Your task to perform on an android device: delete a single message in the gmail app Image 0: 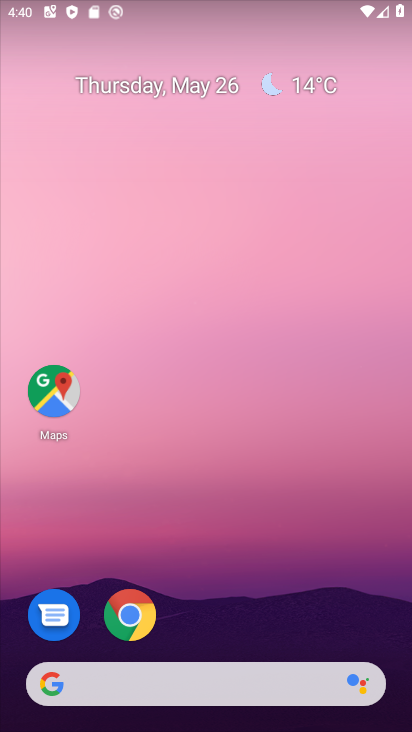
Step 0: drag from (224, 489) to (241, 105)
Your task to perform on an android device: delete a single message in the gmail app Image 1: 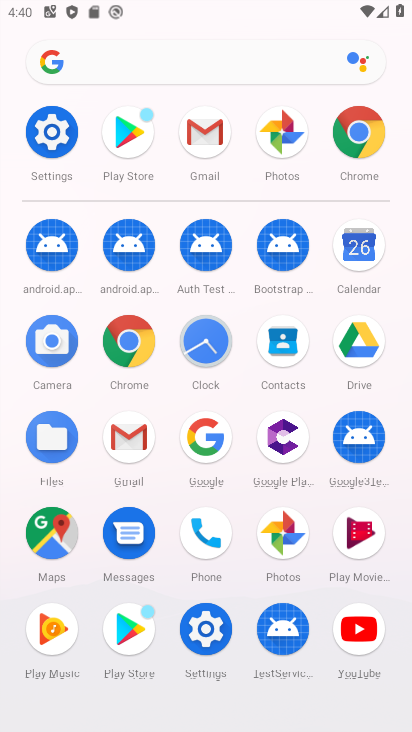
Step 1: click (209, 136)
Your task to perform on an android device: delete a single message in the gmail app Image 2: 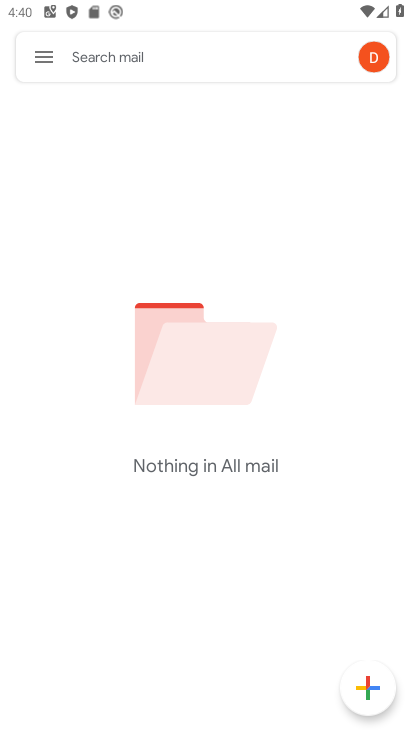
Step 2: click (31, 50)
Your task to perform on an android device: delete a single message in the gmail app Image 3: 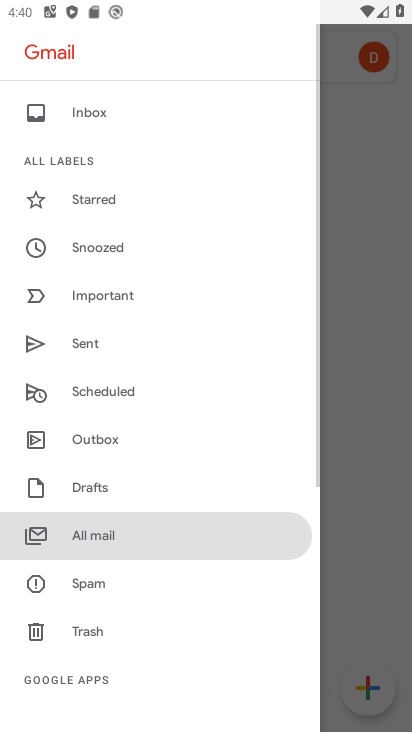
Step 3: drag from (90, 610) to (213, 170)
Your task to perform on an android device: delete a single message in the gmail app Image 4: 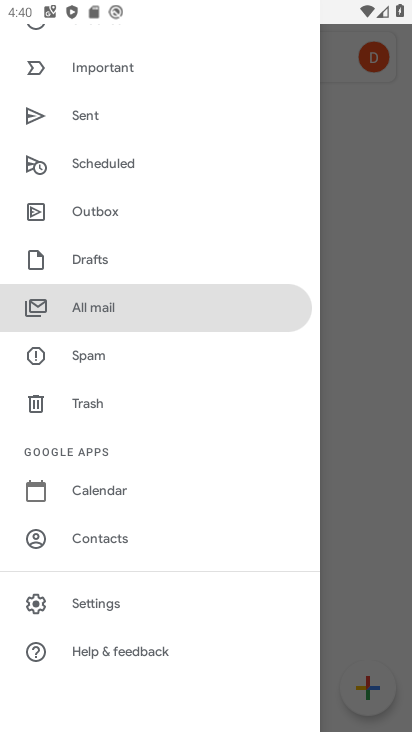
Step 4: click (109, 312)
Your task to perform on an android device: delete a single message in the gmail app Image 5: 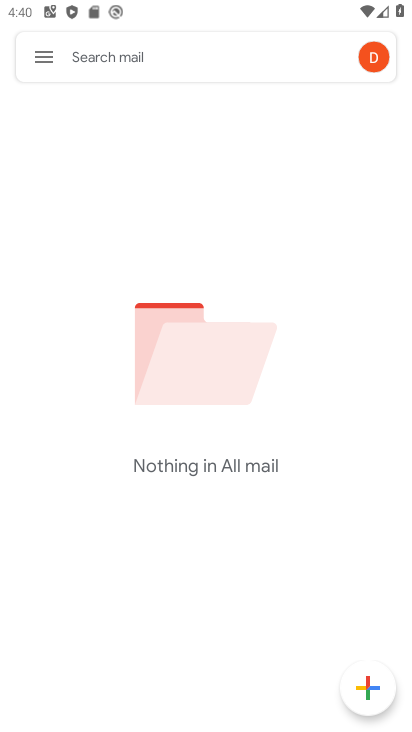
Step 5: task complete